Your task to perform on an android device: Search for flights from Helsinki to Seoul Image 0: 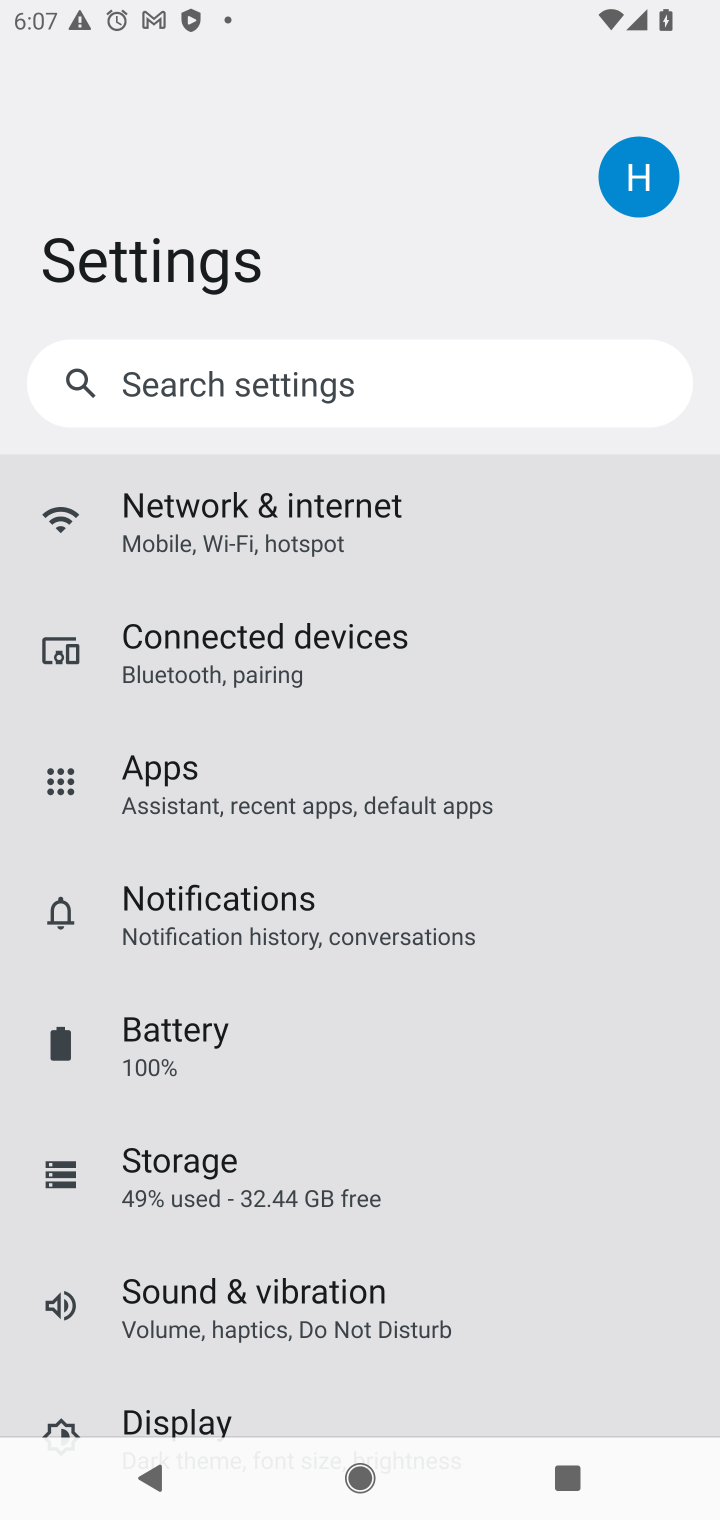
Step 0: press home button
Your task to perform on an android device: Search for flights from Helsinki to Seoul Image 1: 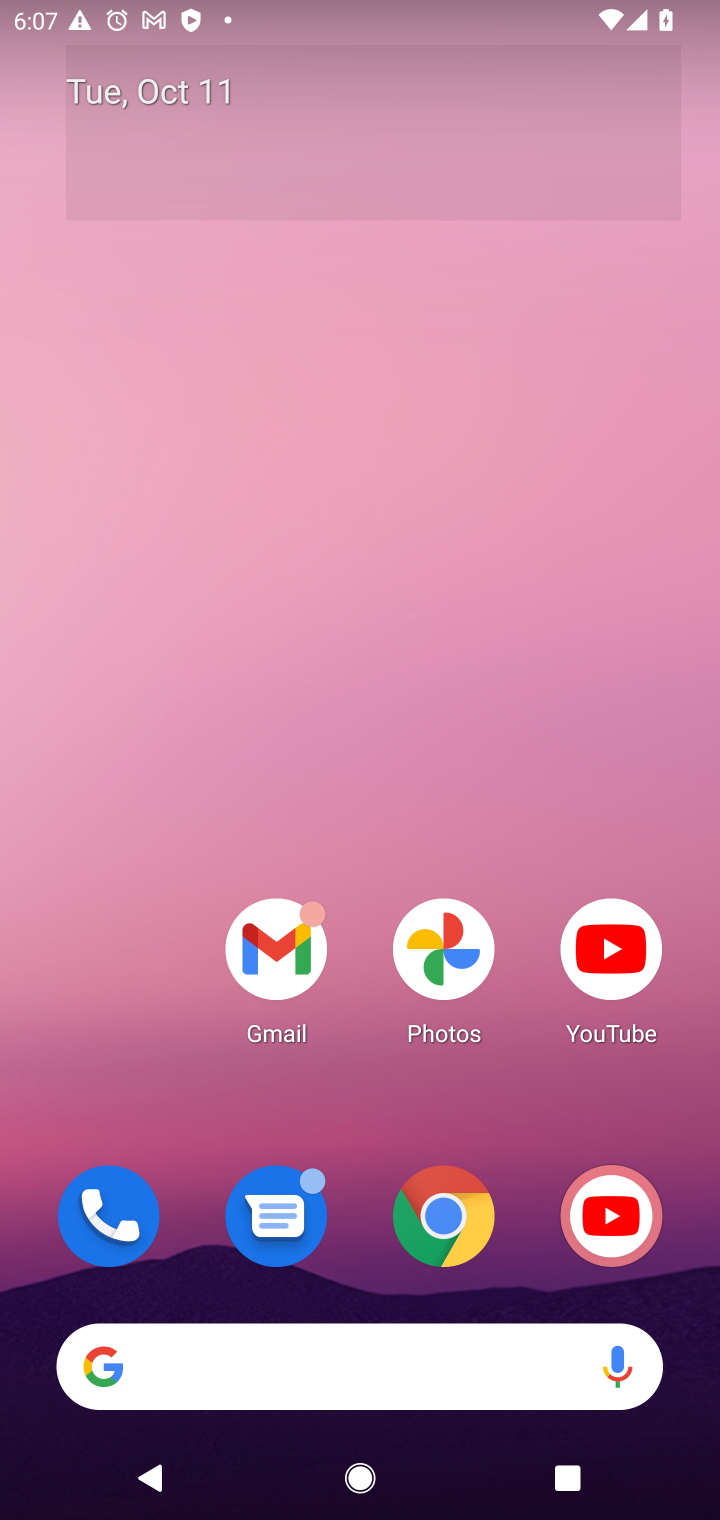
Step 1: click (445, 1276)
Your task to perform on an android device: Search for flights from Helsinki to Seoul Image 2: 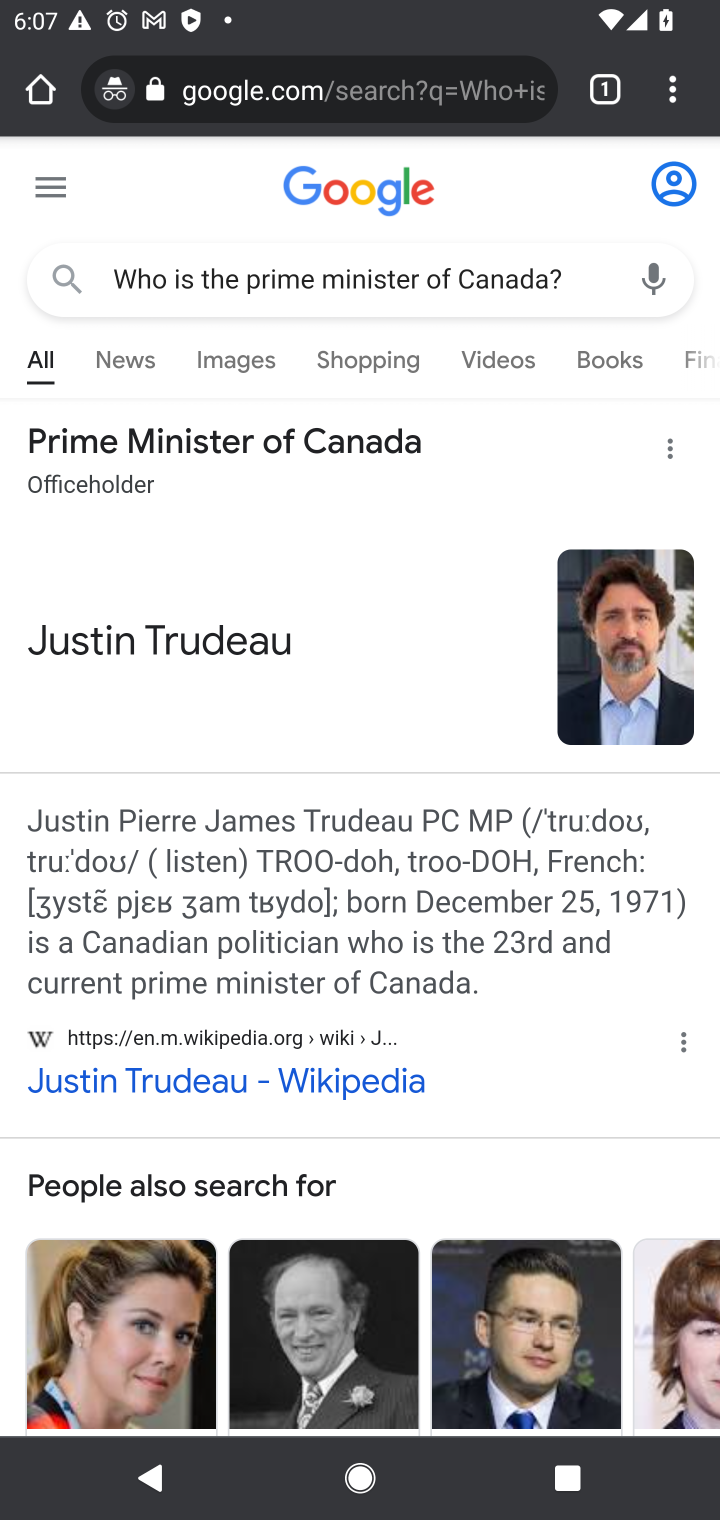
Step 2: click (409, 263)
Your task to perform on an android device: Search for flights from Helsinki to Seoul Image 3: 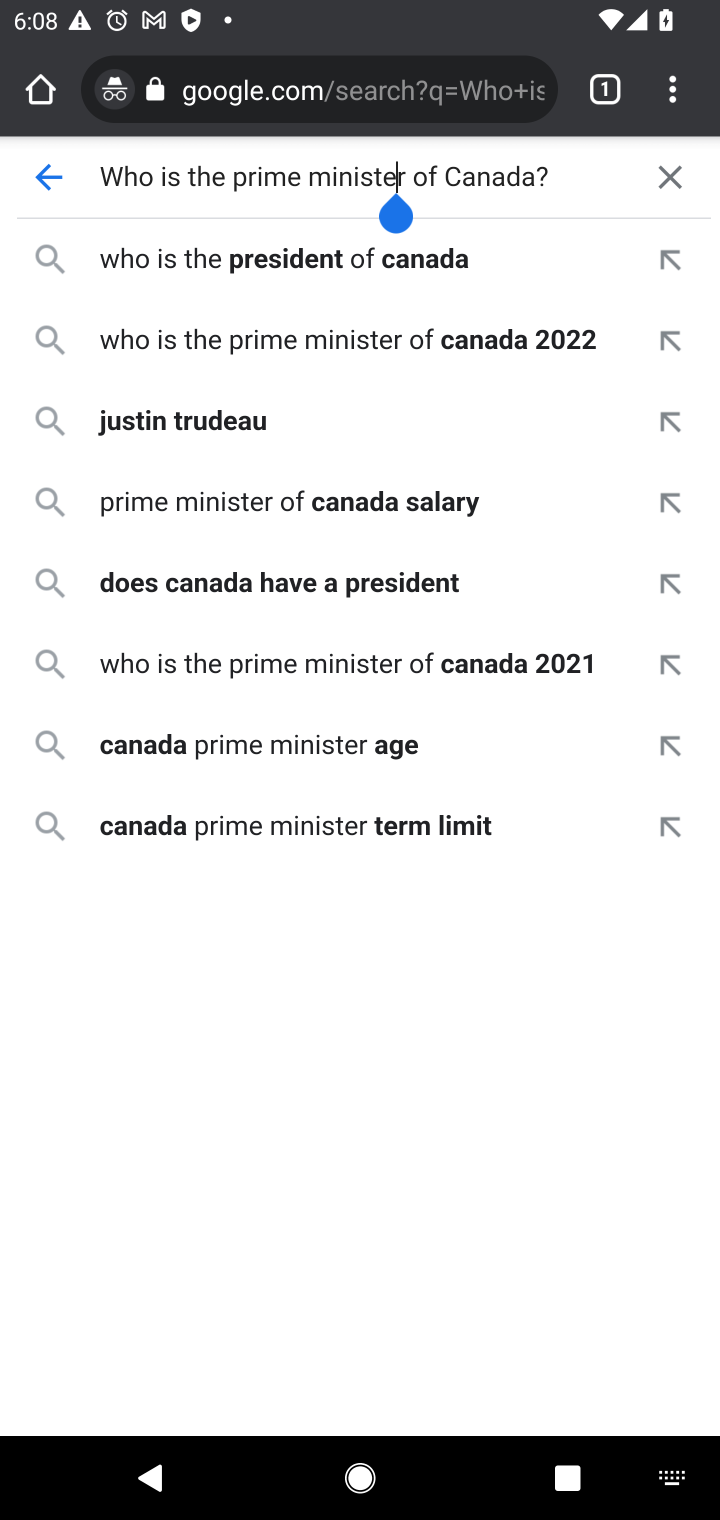
Step 3: click (666, 166)
Your task to perform on an android device: Search for flights from Helsinki to Seoul Image 4: 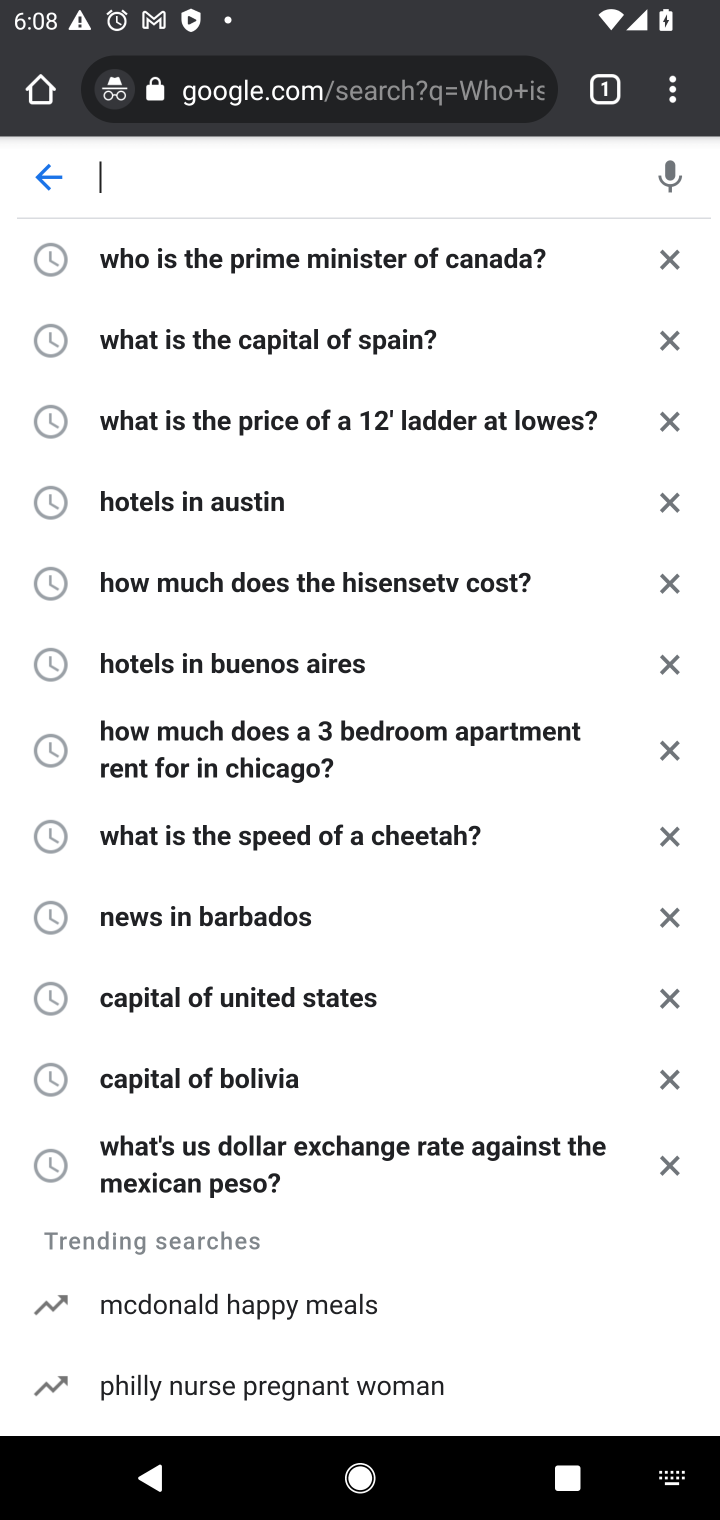
Step 4: type "flights from Helsinki to Seoul"
Your task to perform on an android device: Search for flights from Helsinki to Seoul Image 5: 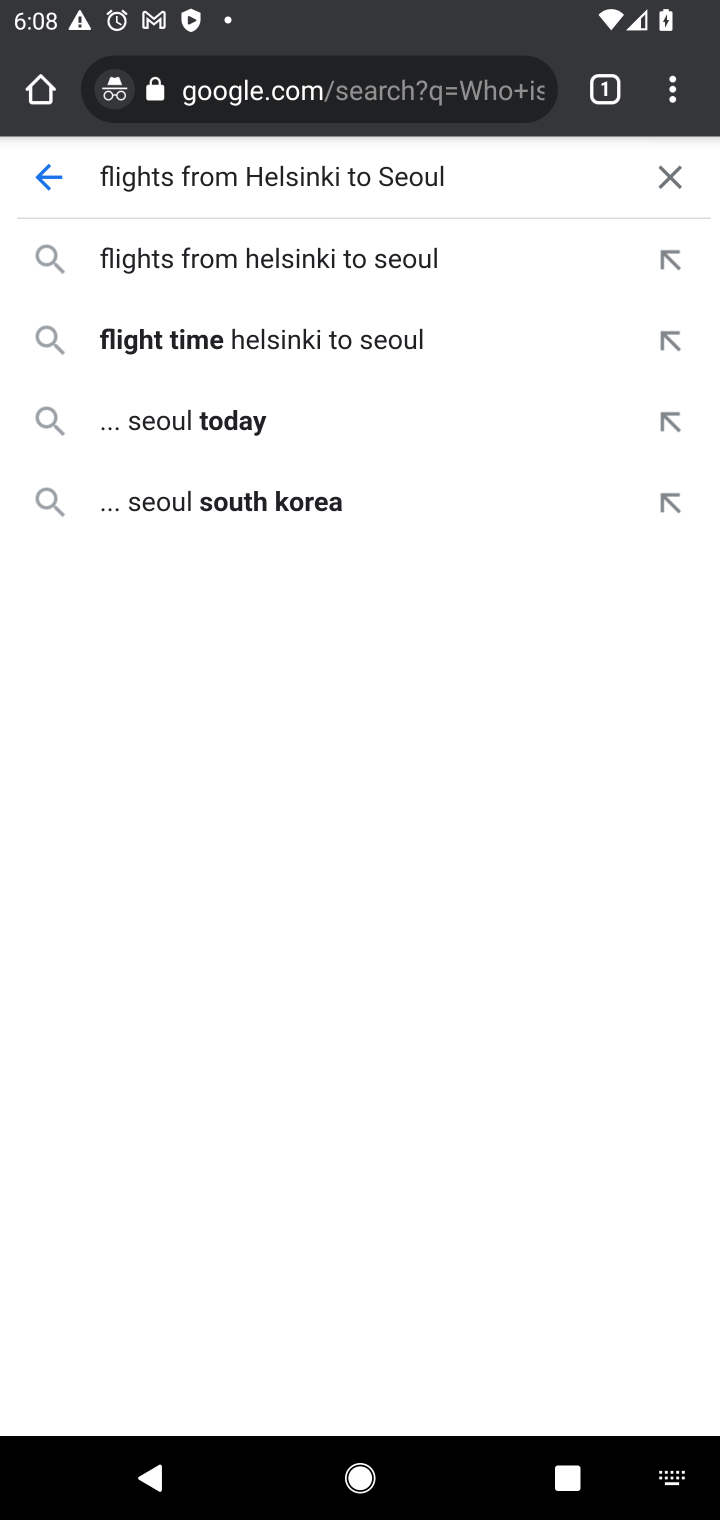
Step 5: press enter
Your task to perform on an android device: Search for flights from Helsinki to Seoul Image 6: 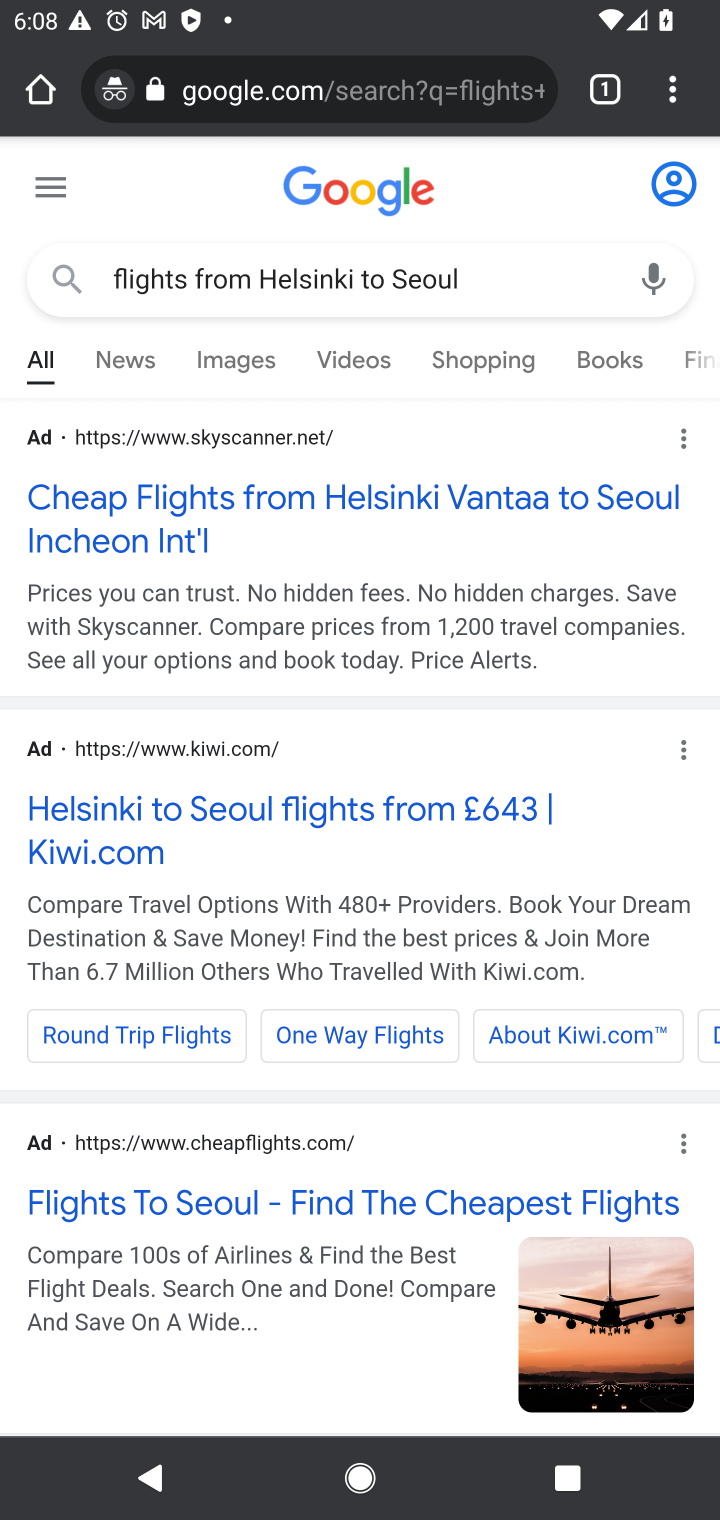
Step 6: task complete